Your task to perform on an android device: See recent photos Image 0: 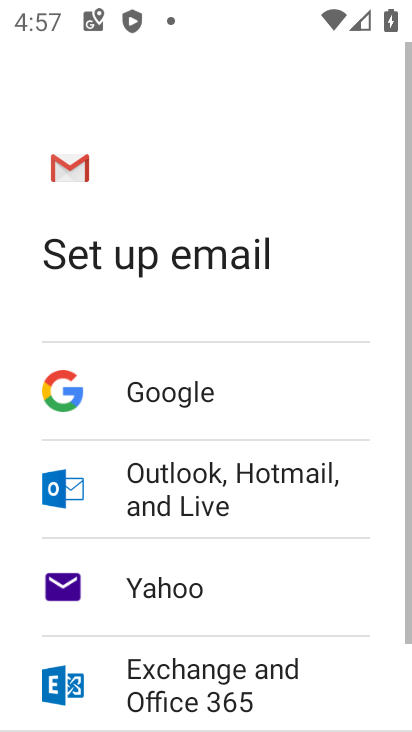
Step 0: press back button
Your task to perform on an android device: See recent photos Image 1: 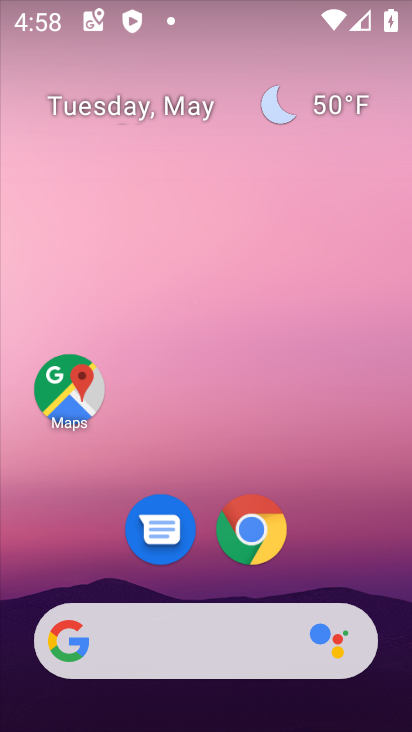
Step 1: drag from (327, 494) to (216, 18)
Your task to perform on an android device: See recent photos Image 2: 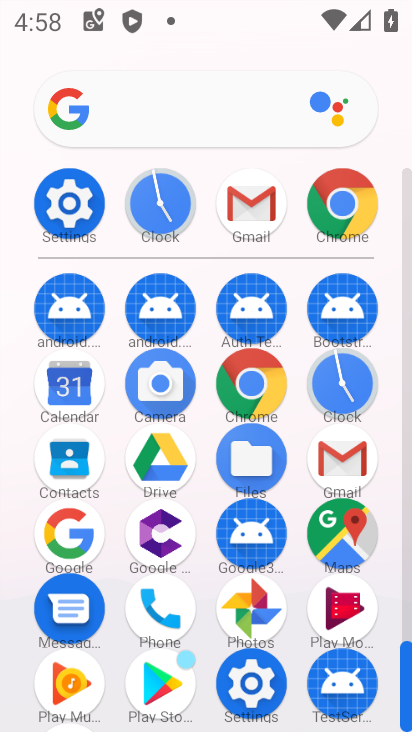
Step 2: drag from (16, 576) to (26, 118)
Your task to perform on an android device: See recent photos Image 3: 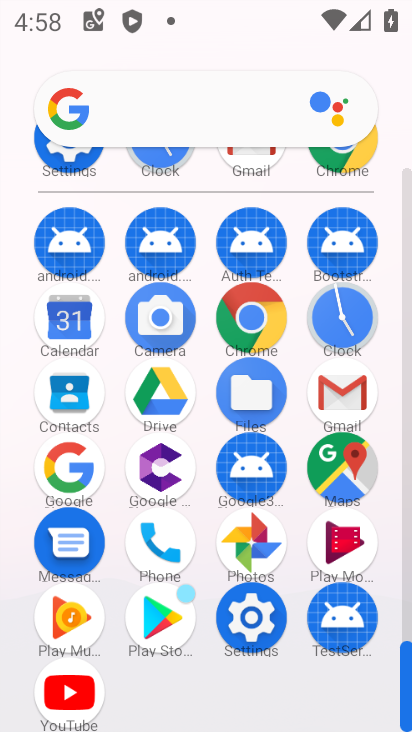
Step 3: click (252, 537)
Your task to perform on an android device: See recent photos Image 4: 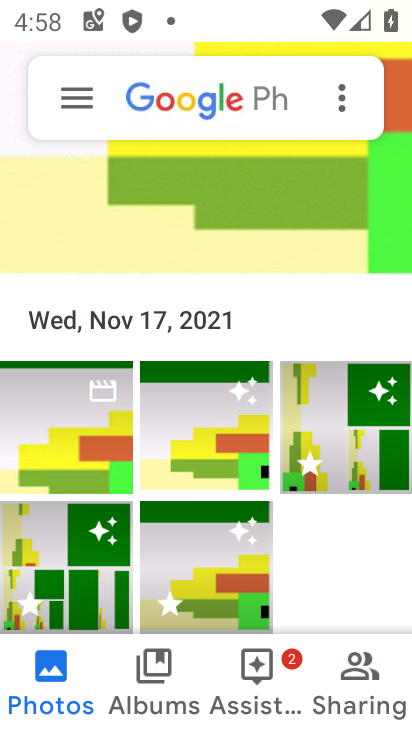
Step 4: click (57, 682)
Your task to perform on an android device: See recent photos Image 5: 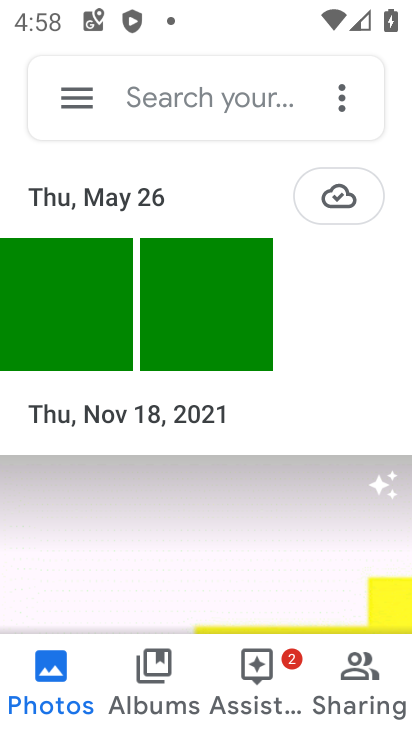
Step 5: task complete